Your task to perform on an android device: turn on bluetooth scan Image 0: 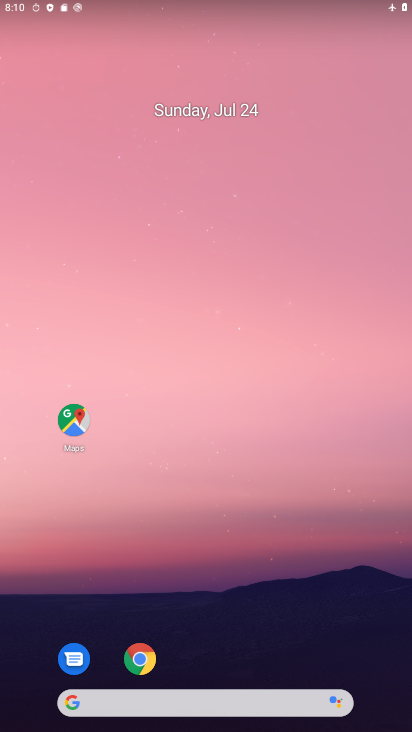
Step 0: drag from (232, 723) to (160, 452)
Your task to perform on an android device: turn on bluetooth scan Image 1: 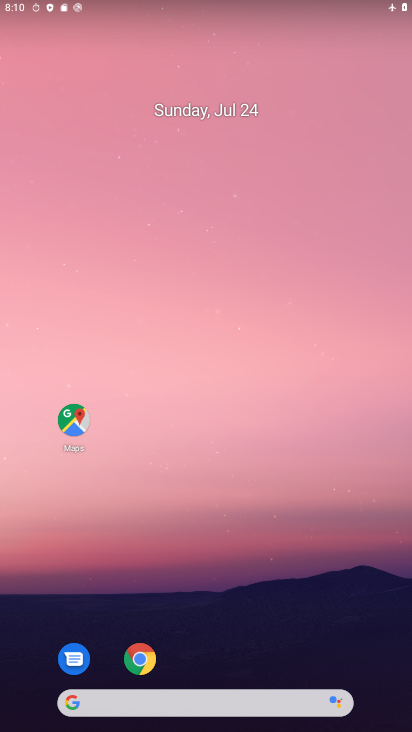
Step 1: drag from (245, 606) to (250, 158)
Your task to perform on an android device: turn on bluetooth scan Image 2: 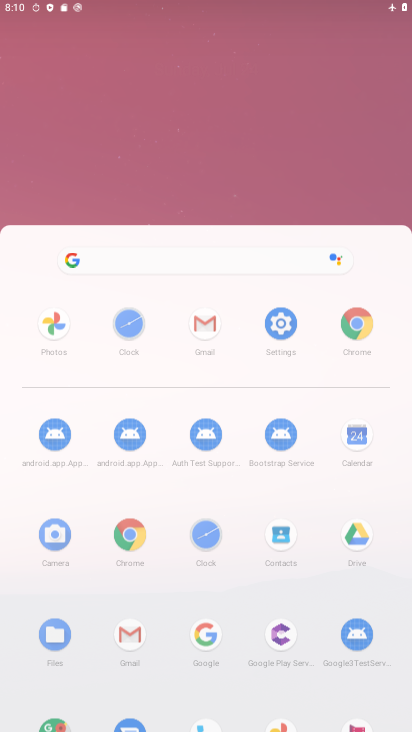
Step 2: drag from (301, 493) to (329, 187)
Your task to perform on an android device: turn on bluetooth scan Image 3: 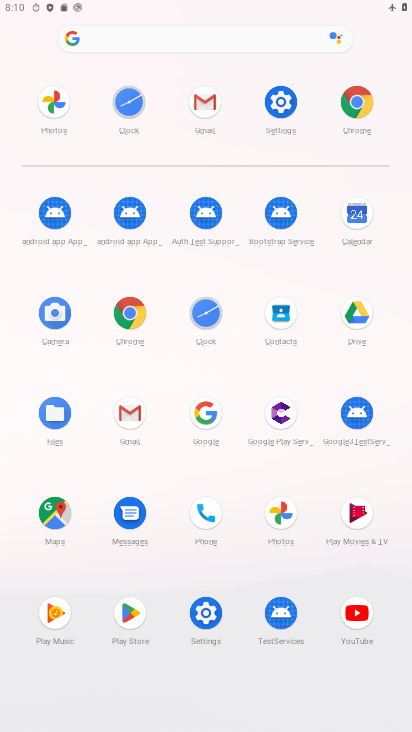
Step 3: click (285, 97)
Your task to perform on an android device: turn on bluetooth scan Image 4: 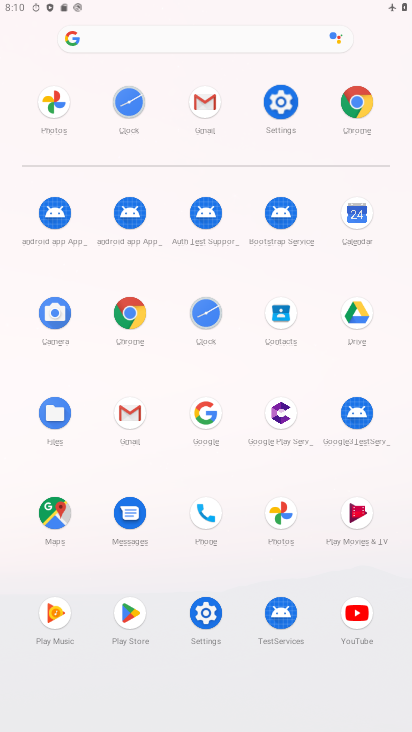
Step 4: click (282, 95)
Your task to perform on an android device: turn on bluetooth scan Image 5: 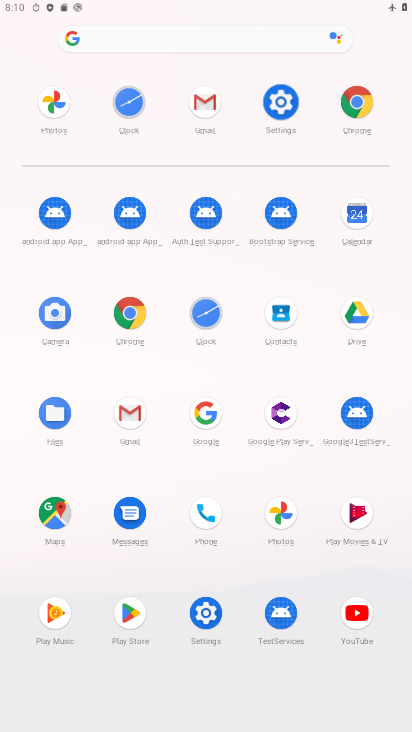
Step 5: click (283, 94)
Your task to perform on an android device: turn on bluetooth scan Image 6: 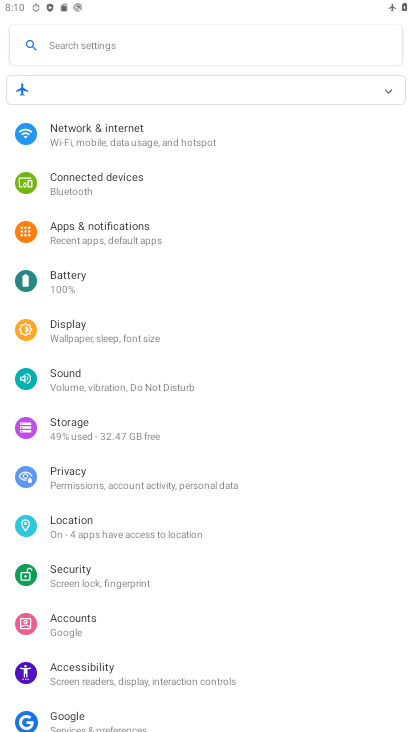
Step 6: click (76, 529)
Your task to perform on an android device: turn on bluetooth scan Image 7: 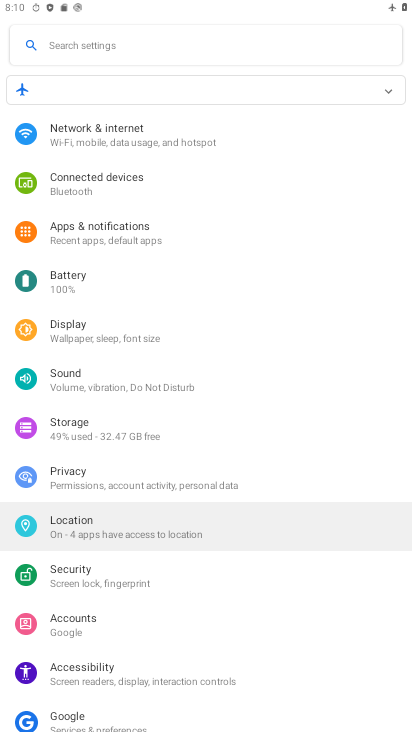
Step 7: click (76, 529)
Your task to perform on an android device: turn on bluetooth scan Image 8: 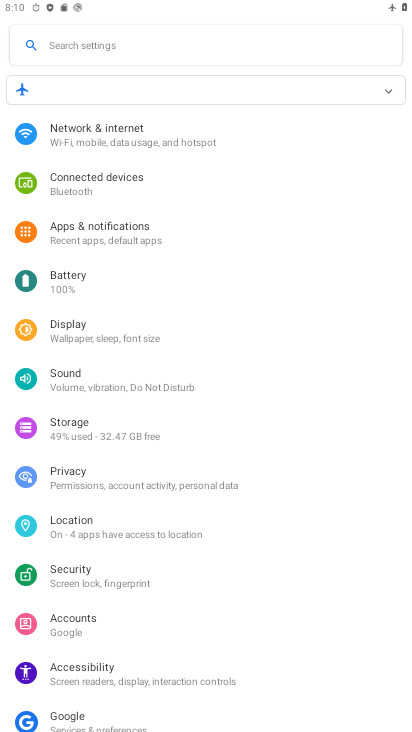
Step 8: click (88, 518)
Your task to perform on an android device: turn on bluetooth scan Image 9: 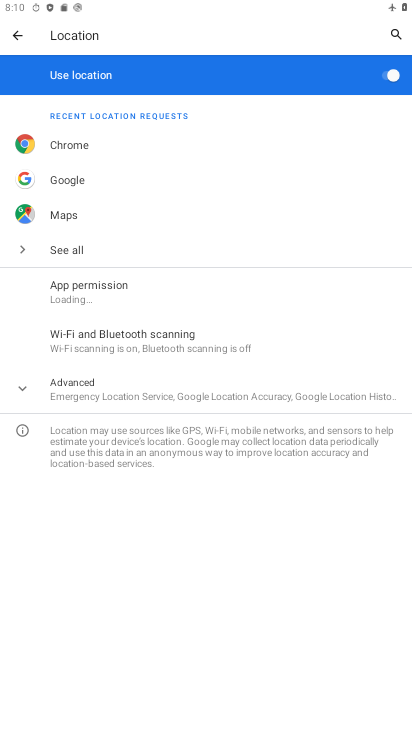
Step 9: click (140, 338)
Your task to perform on an android device: turn on bluetooth scan Image 10: 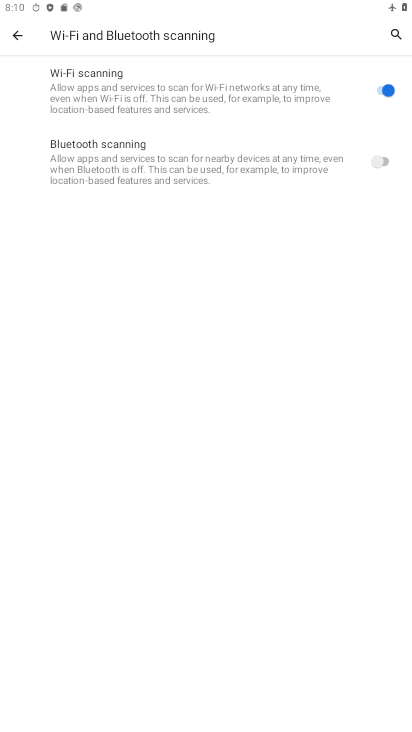
Step 10: click (375, 161)
Your task to perform on an android device: turn on bluetooth scan Image 11: 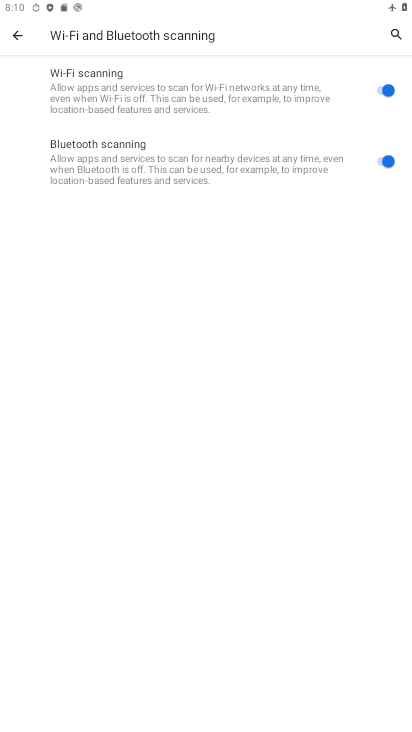
Step 11: task complete